Your task to perform on an android device: turn notification dots off Image 0: 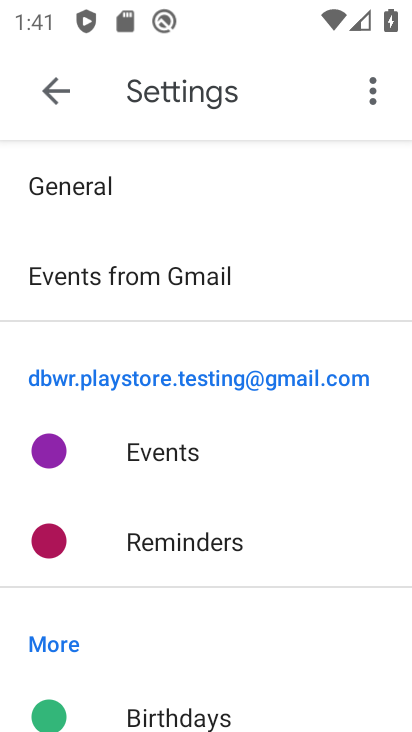
Step 0: press home button
Your task to perform on an android device: turn notification dots off Image 1: 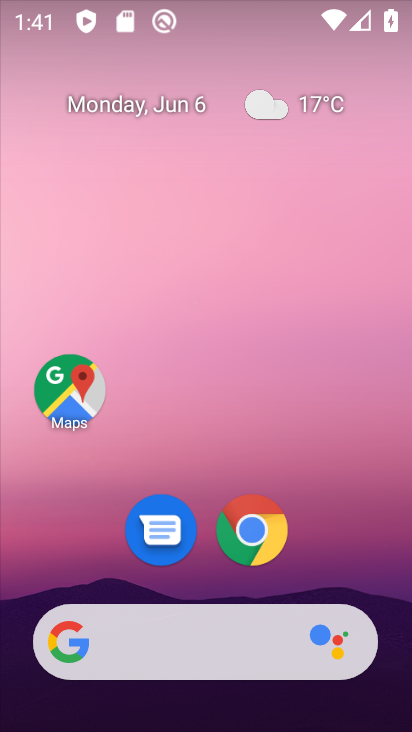
Step 1: drag from (303, 541) to (332, 186)
Your task to perform on an android device: turn notification dots off Image 2: 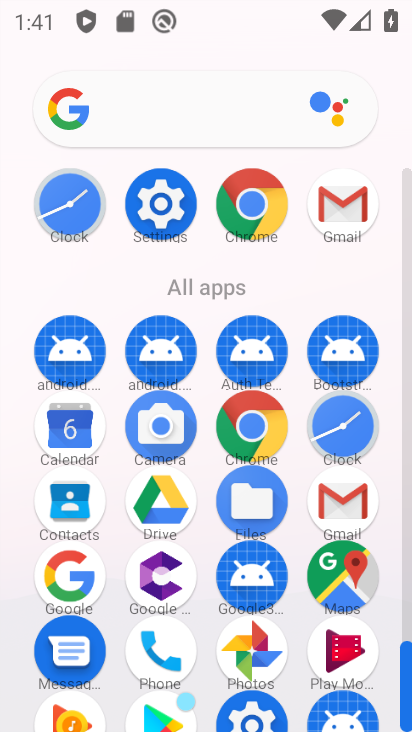
Step 2: click (155, 203)
Your task to perform on an android device: turn notification dots off Image 3: 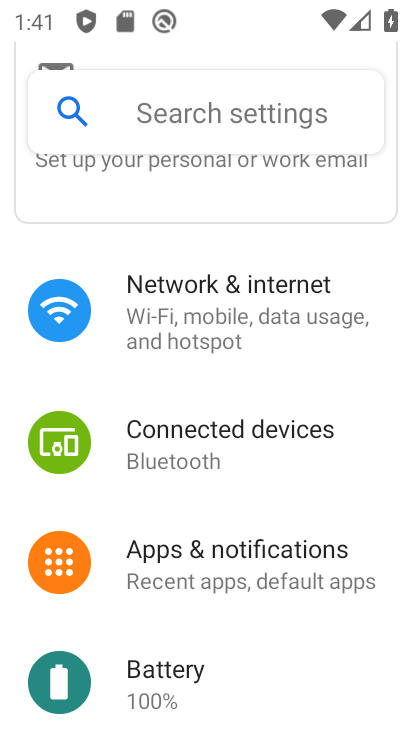
Step 3: click (192, 104)
Your task to perform on an android device: turn notification dots off Image 4: 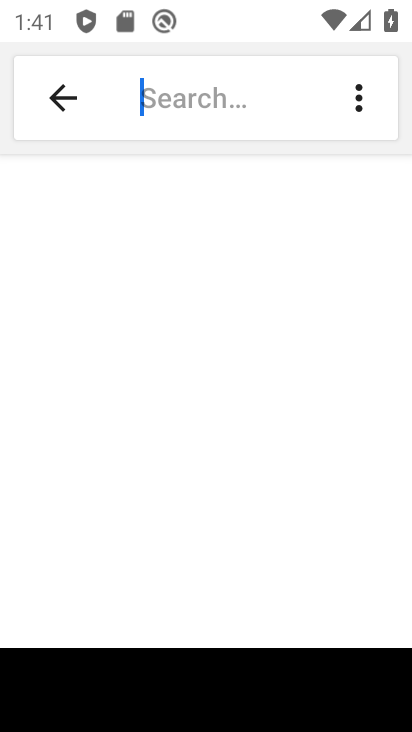
Step 4: click (219, 104)
Your task to perform on an android device: turn notification dots off Image 5: 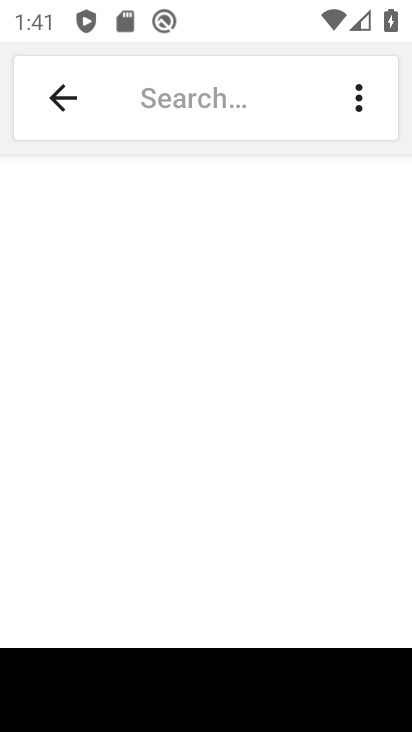
Step 5: click (291, 85)
Your task to perform on an android device: turn notification dots off Image 6: 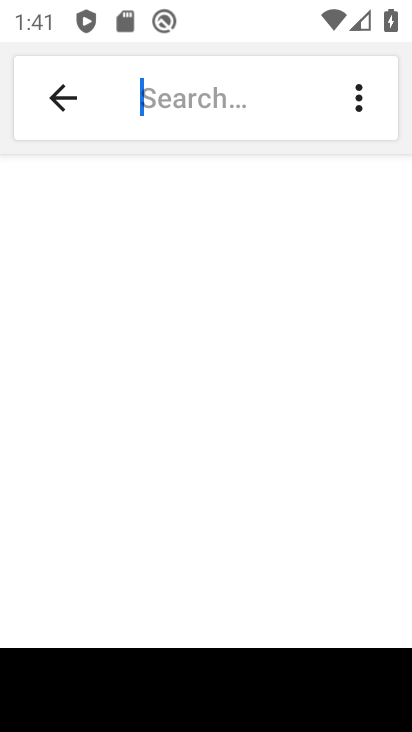
Step 6: type " notification dots"
Your task to perform on an android device: turn notification dots off Image 7: 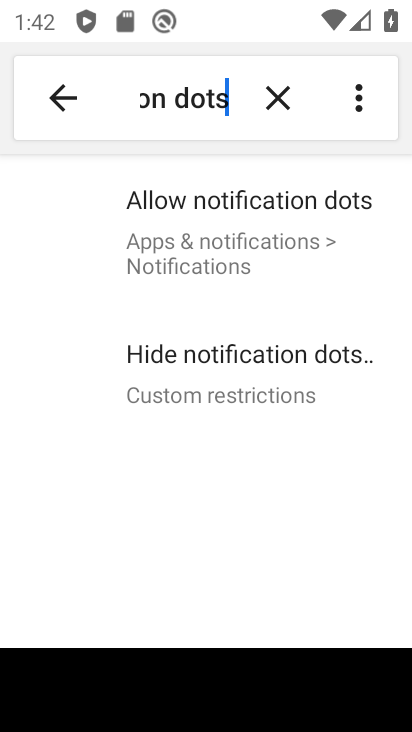
Step 7: click (203, 238)
Your task to perform on an android device: turn notification dots off Image 8: 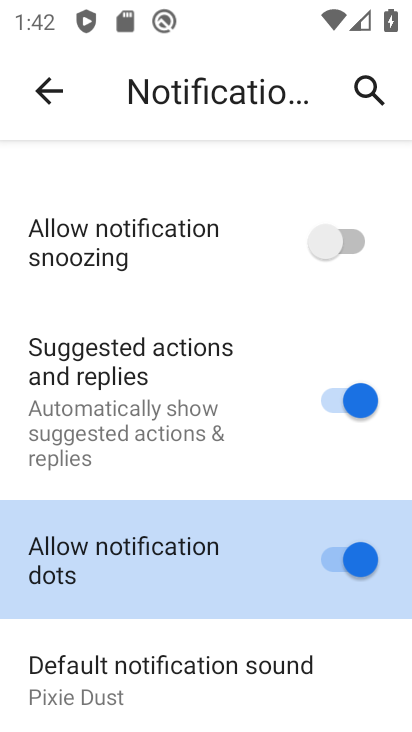
Step 8: click (336, 541)
Your task to perform on an android device: turn notification dots off Image 9: 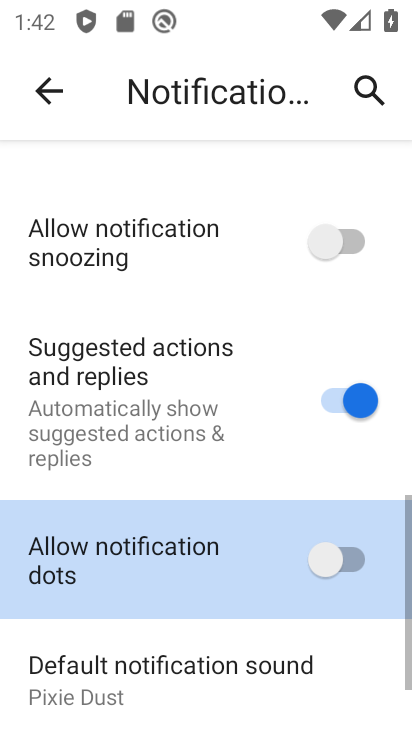
Step 9: task complete